Your task to perform on an android device: Open my contact list Image 0: 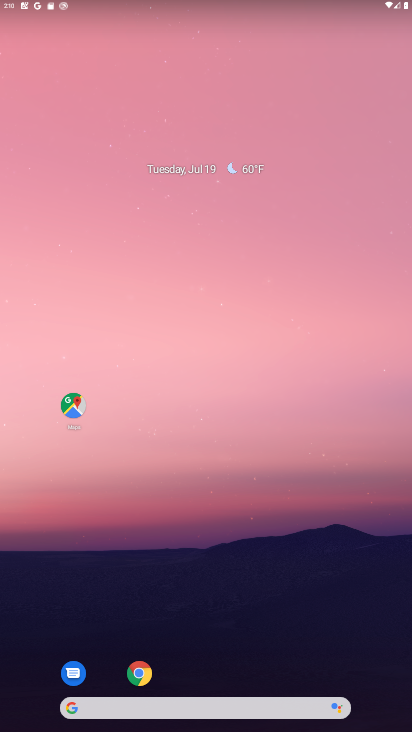
Step 0: drag from (168, 665) to (231, 91)
Your task to perform on an android device: Open my contact list Image 1: 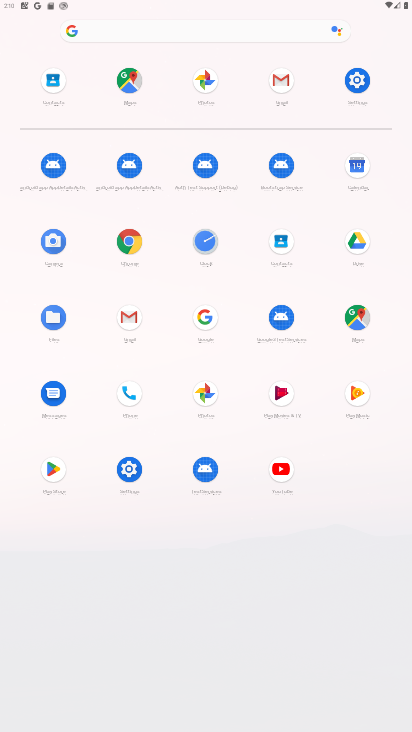
Step 1: click (285, 248)
Your task to perform on an android device: Open my contact list Image 2: 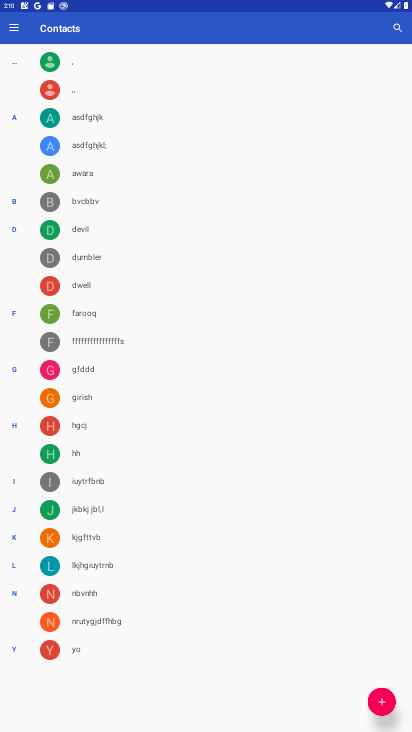
Step 2: task complete